Your task to perform on an android device: Go to CNN.com Image 0: 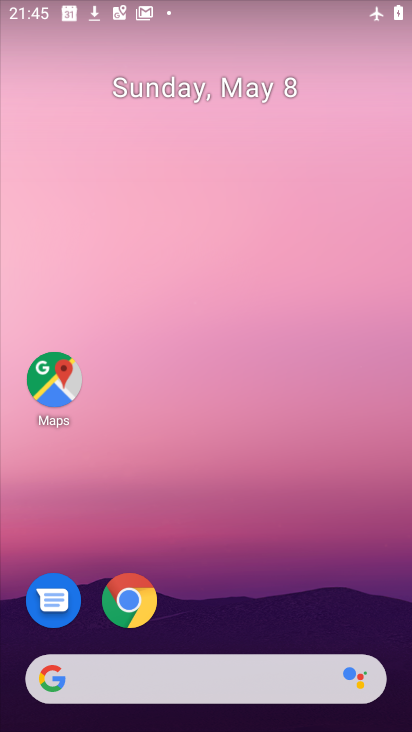
Step 0: drag from (307, 698) to (259, 244)
Your task to perform on an android device: Go to CNN.com Image 1: 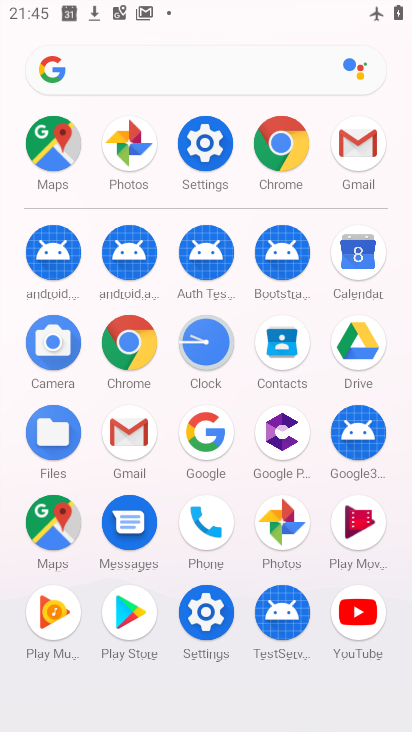
Step 1: click (146, 340)
Your task to perform on an android device: Go to CNN.com Image 2: 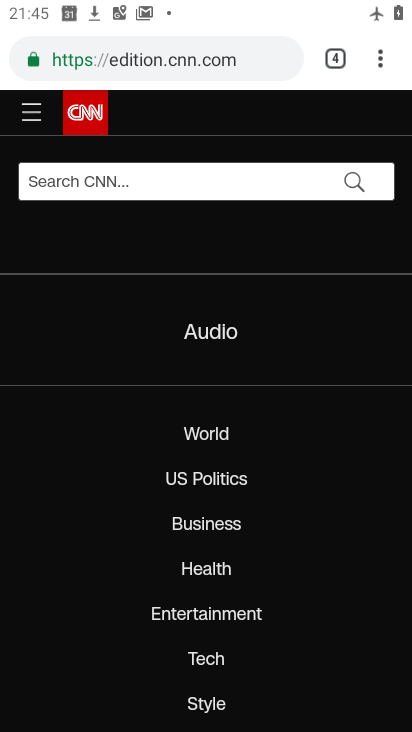
Step 2: click (185, 70)
Your task to perform on an android device: Go to CNN.com Image 3: 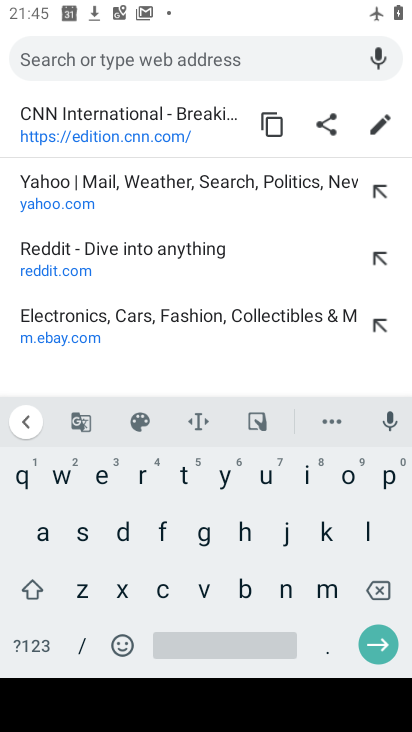
Step 3: click (155, 124)
Your task to perform on an android device: Go to CNN.com Image 4: 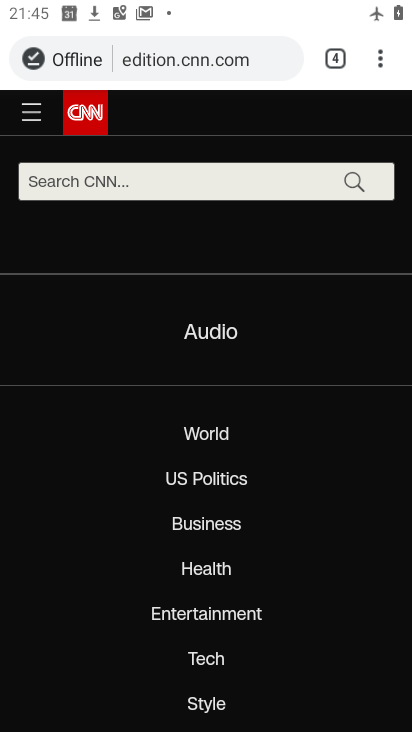
Step 4: task complete